Your task to perform on an android device: toggle notification dots Image 0: 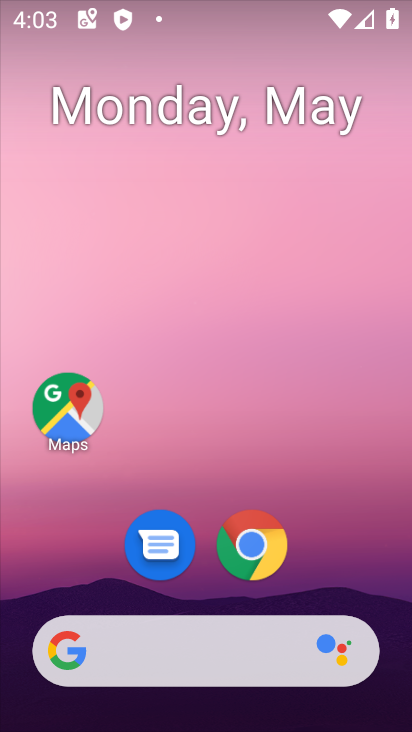
Step 0: drag from (209, 578) to (216, 15)
Your task to perform on an android device: toggle notification dots Image 1: 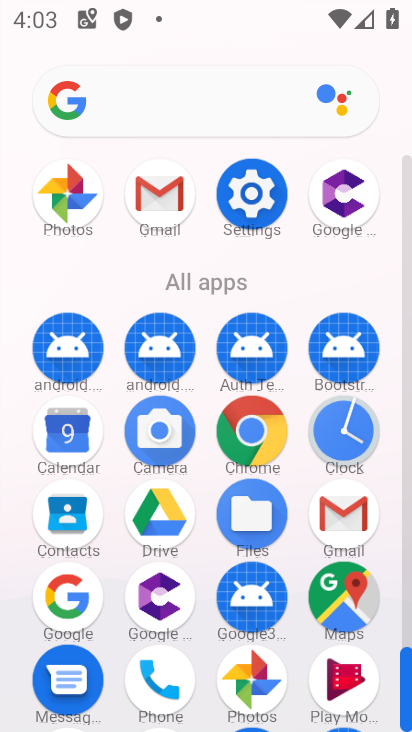
Step 1: click (249, 202)
Your task to perform on an android device: toggle notification dots Image 2: 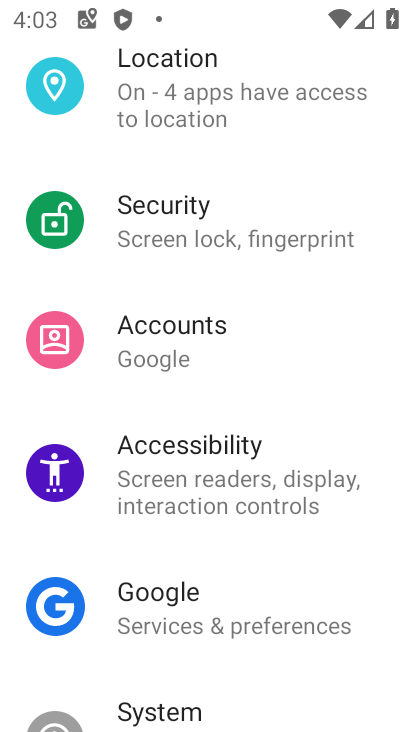
Step 2: drag from (211, 166) to (288, 700)
Your task to perform on an android device: toggle notification dots Image 3: 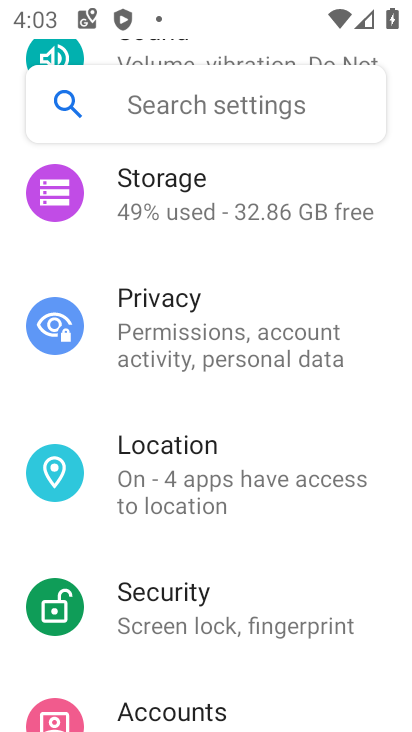
Step 3: drag from (223, 237) to (303, 713)
Your task to perform on an android device: toggle notification dots Image 4: 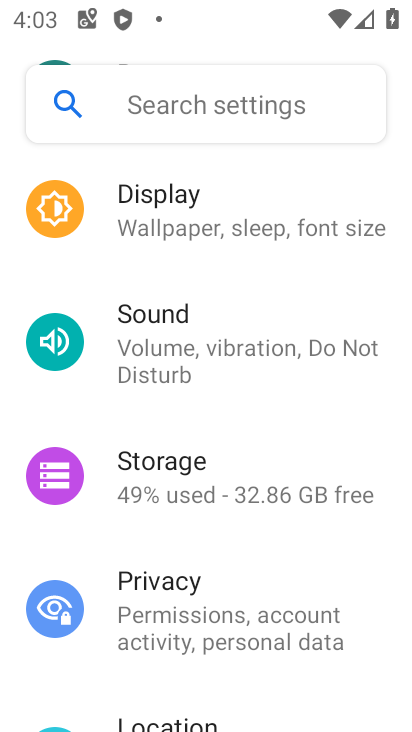
Step 4: drag from (232, 211) to (271, 725)
Your task to perform on an android device: toggle notification dots Image 5: 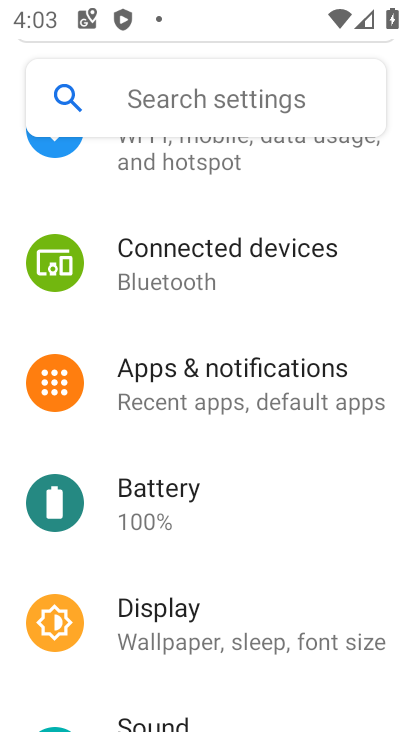
Step 5: click (195, 402)
Your task to perform on an android device: toggle notification dots Image 6: 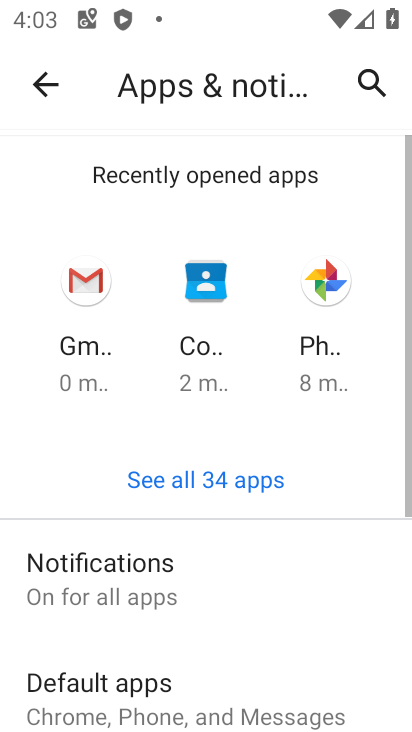
Step 6: click (133, 552)
Your task to perform on an android device: toggle notification dots Image 7: 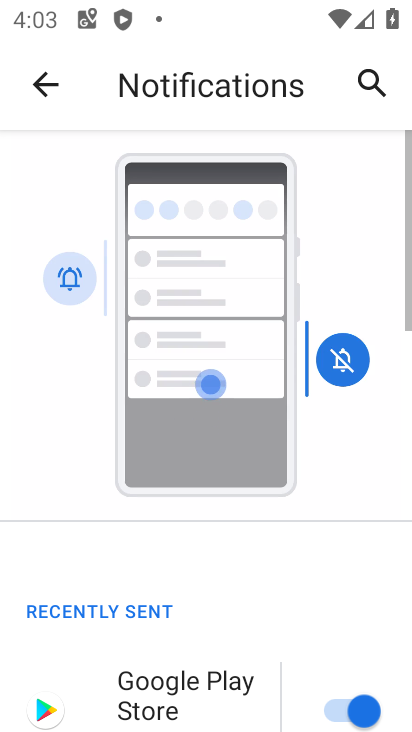
Step 7: drag from (283, 596) to (307, 17)
Your task to perform on an android device: toggle notification dots Image 8: 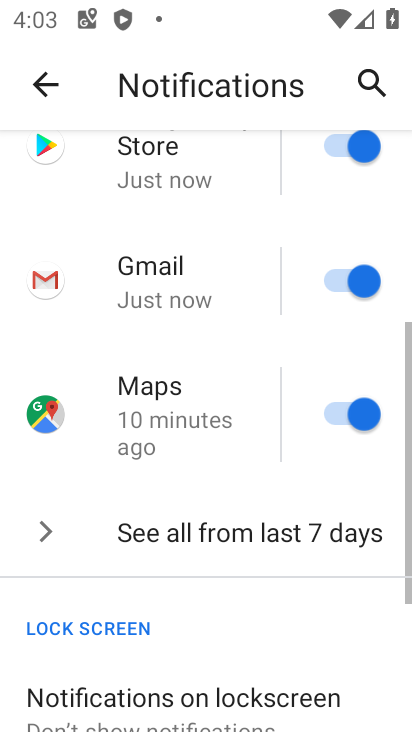
Step 8: drag from (230, 618) to (247, 98)
Your task to perform on an android device: toggle notification dots Image 9: 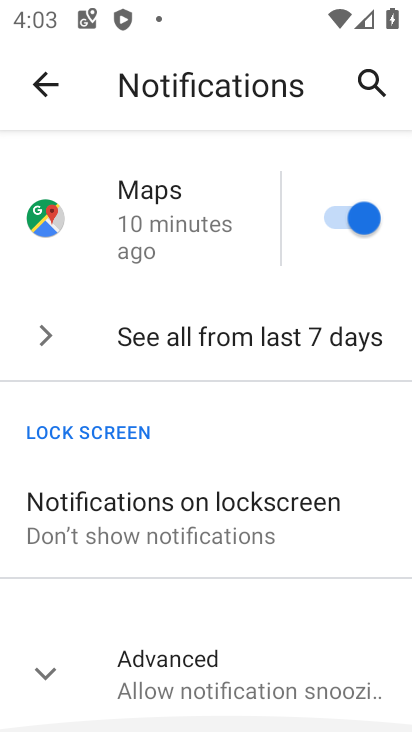
Step 9: click (151, 671)
Your task to perform on an android device: toggle notification dots Image 10: 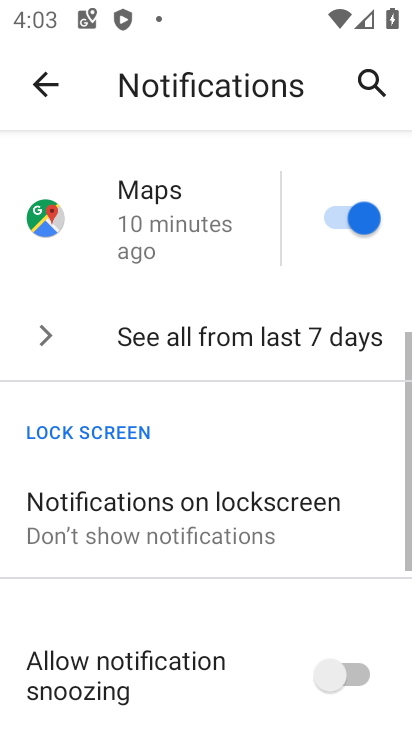
Step 10: drag from (284, 576) to (256, 138)
Your task to perform on an android device: toggle notification dots Image 11: 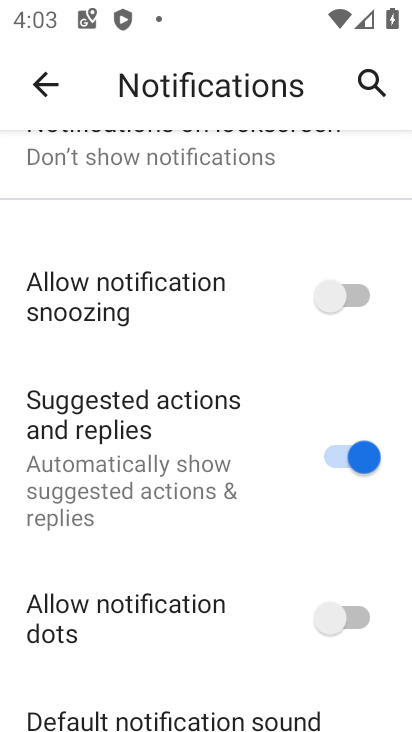
Step 11: drag from (341, 620) to (333, 587)
Your task to perform on an android device: toggle notification dots Image 12: 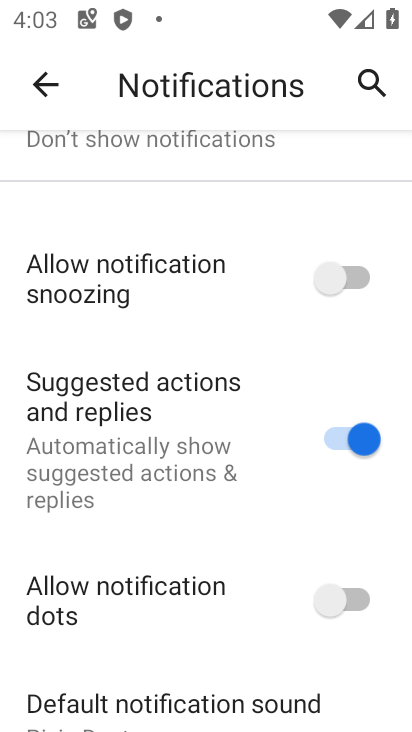
Step 12: click (333, 587)
Your task to perform on an android device: toggle notification dots Image 13: 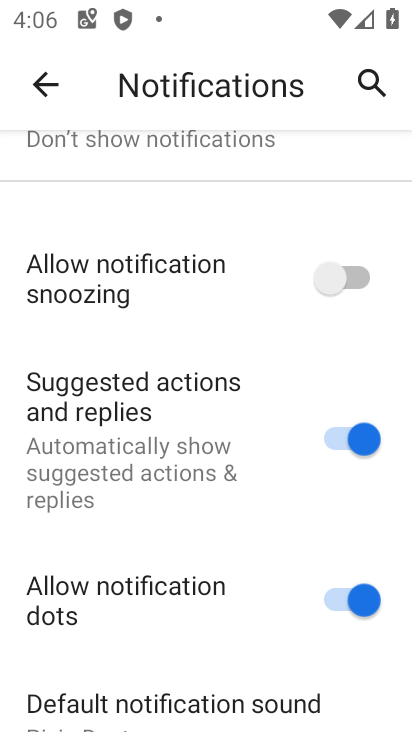
Step 13: task complete